Your task to perform on an android device: open chrome and create a bookmark for the current page Image 0: 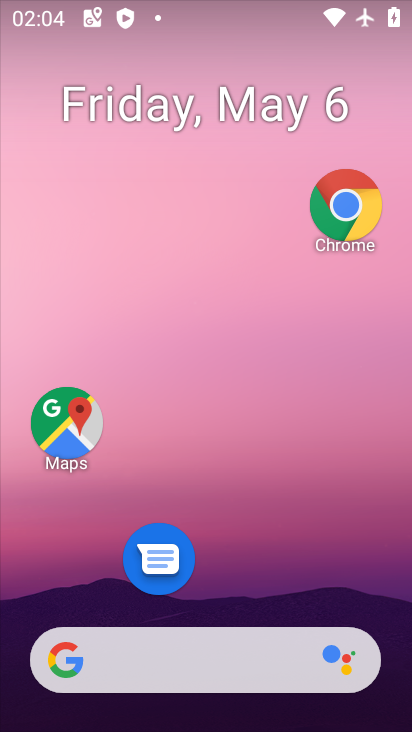
Step 0: press home button
Your task to perform on an android device: open chrome and create a bookmark for the current page Image 1: 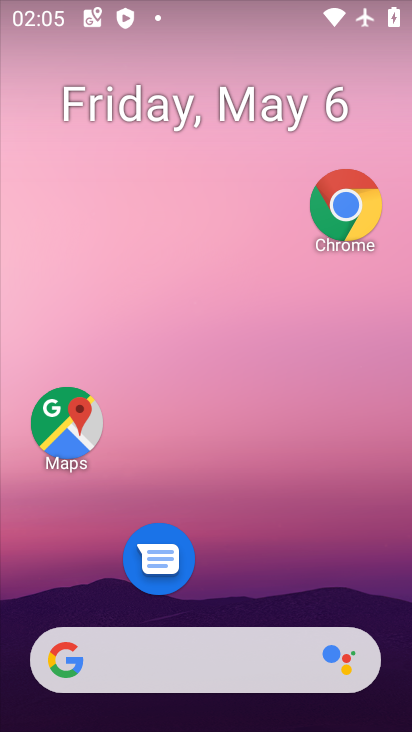
Step 1: drag from (210, 657) to (374, 108)
Your task to perform on an android device: open chrome and create a bookmark for the current page Image 2: 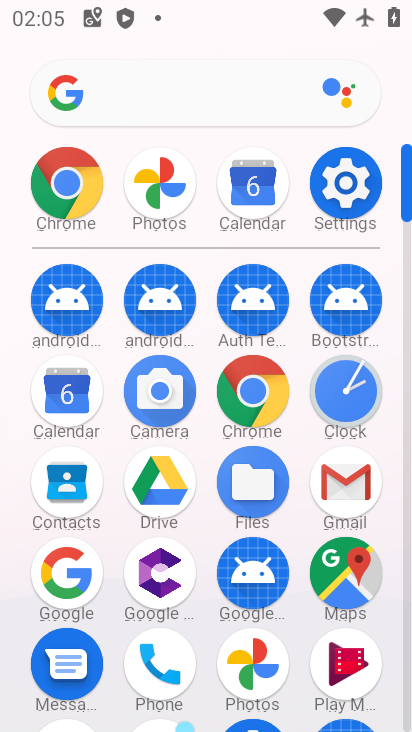
Step 2: click (72, 194)
Your task to perform on an android device: open chrome and create a bookmark for the current page Image 3: 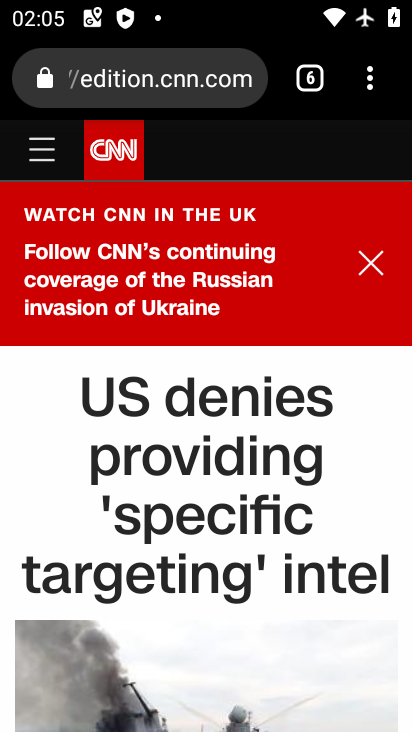
Step 3: click (354, 99)
Your task to perform on an android device: open chrome and create a bookmark for the current page Image 4: 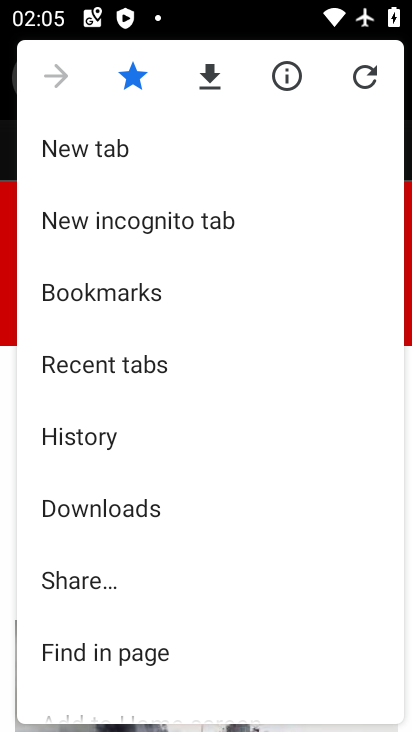
Step 4: task complete